Your task to perform on an android device: Search for Mexican restaurants on Maps Image 0: 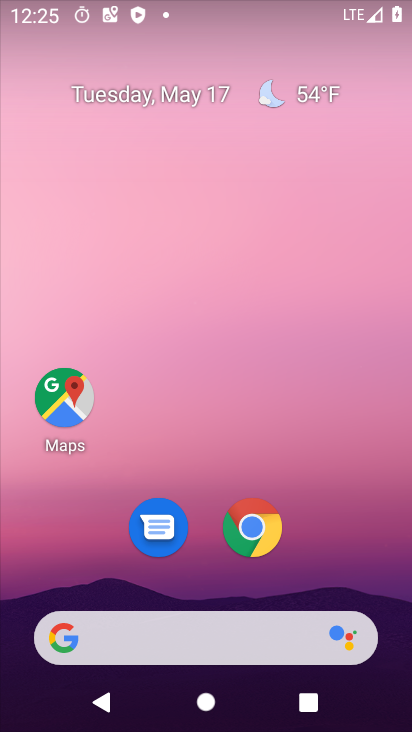
Step 0: drag from (255, 667) to (311, 222)
Your task to perform on an android device: Search for Mexican restaurants on Maps Image 1: 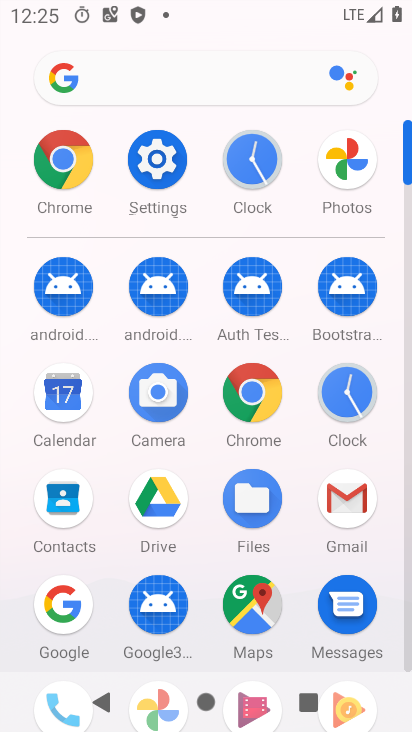
Step 1: click (261, 590)
Your task to perform on an android device: Search for Mexican restaurants on Maps Image 2: 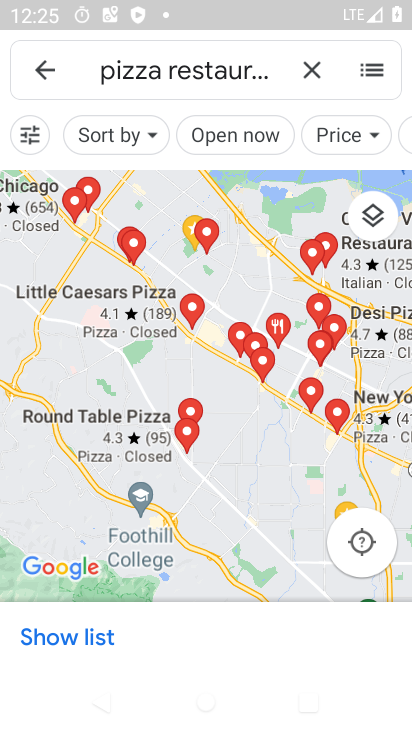
Step 2: click (314, 63)
Your task to perform on an android device: Search for Mexican restaurants on Maps Image 3: 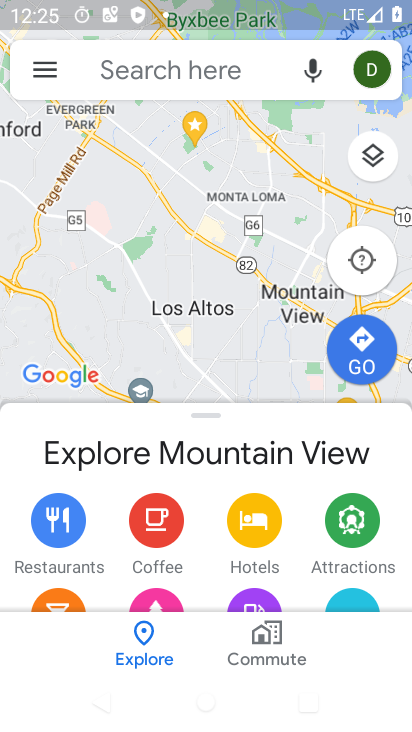
Step 3: click (211, 70)
Your task to perform on an android device: Search for Mexican restaurants on Maps Image 4: 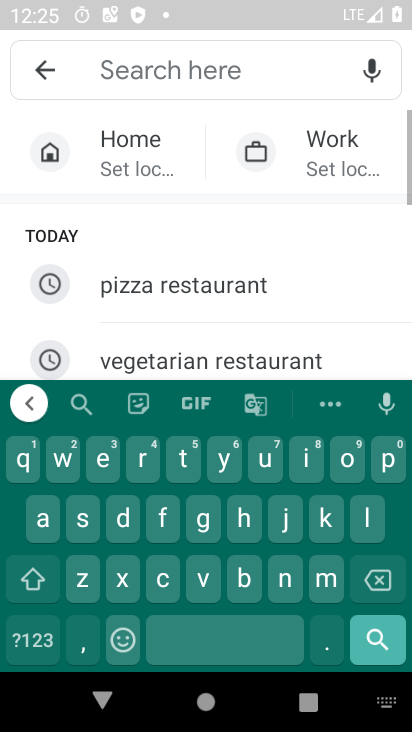
Step 4: click (255, 280)
Your task to perform on an android device: Search for Mexican restaurants on Maps Image 5: 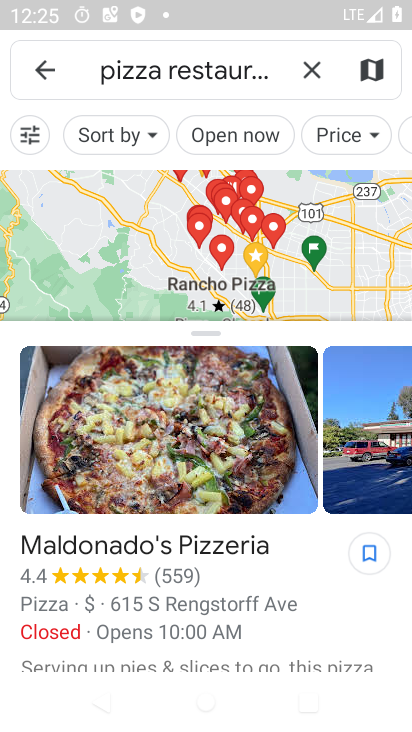
Step 5: click (303, 60)
Your task to perform on an android device: Search for Mexican restaurants on Maps Image 6: 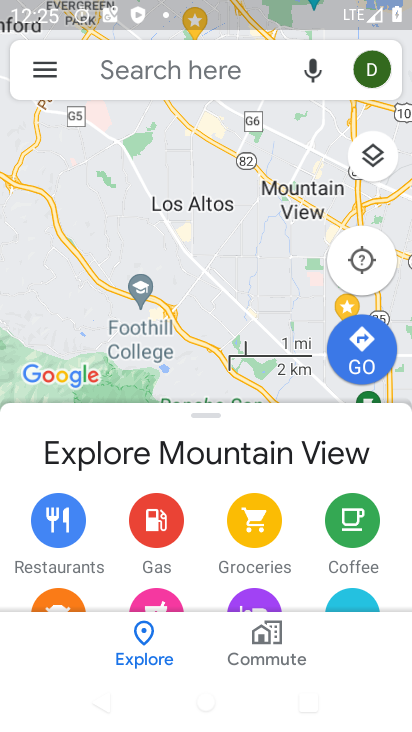
Step 6: click (129, 81)
Your task to perform on an android device: Search for Mexican restaurants on Maps Image 7: 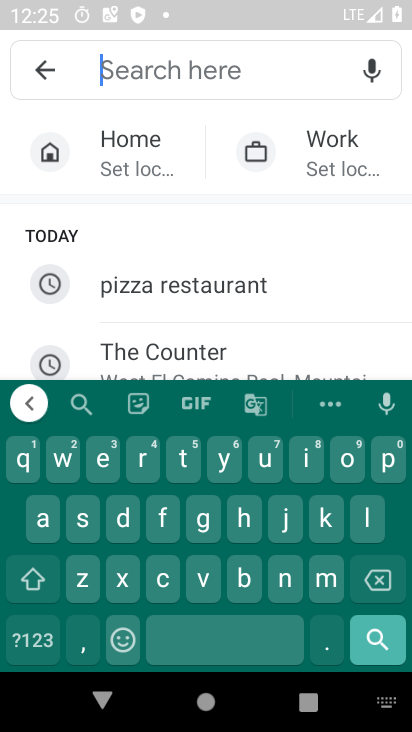
Step 7: click (326, 568)
Your task to perform on an android device: Search for Mexican restaurants on Maps Image 8: 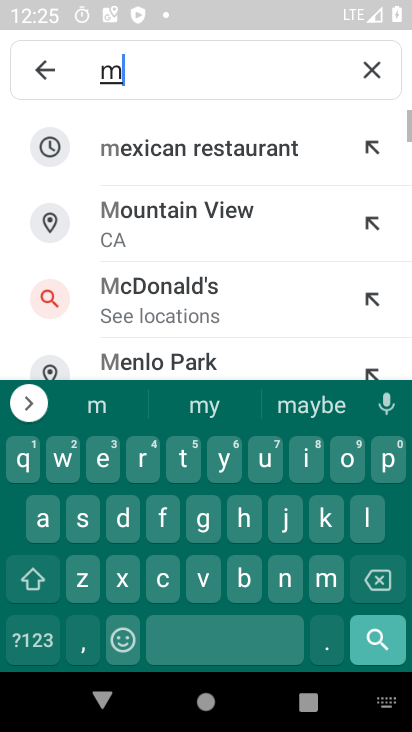
Step 8: click (171, 152)
Your task to perform on an android device: Search for Mexican restaurants on Maps Image 9: 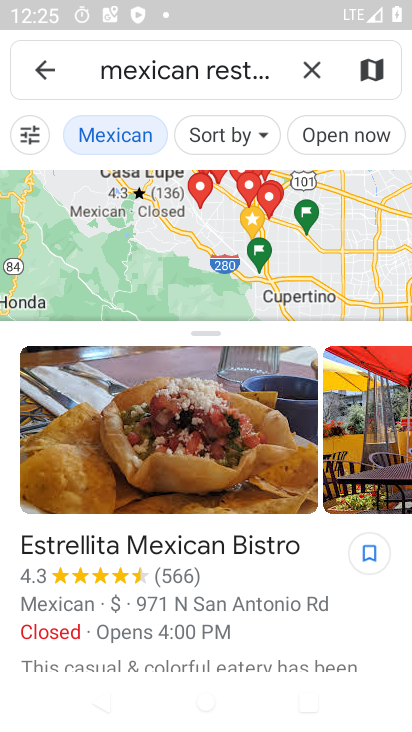
Step 9: task complete